Your task to perform on an android device: find snoozed emails in the gmail app Image 0: 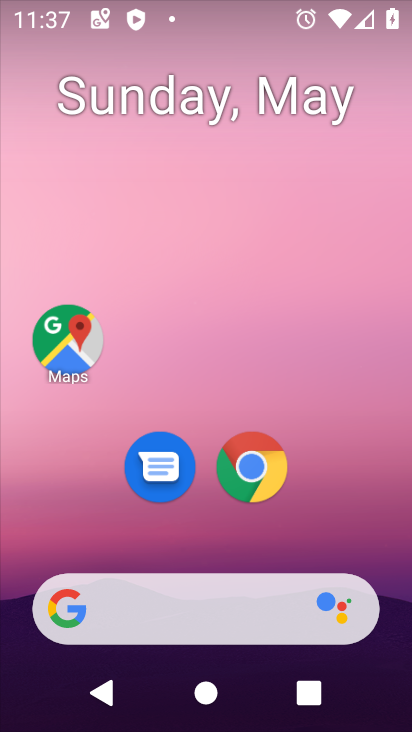
Step 0: drag from (384, 554) to (370, 16)
Your task to perform on an android device: find snoozed emails in the gmail app Image 1: 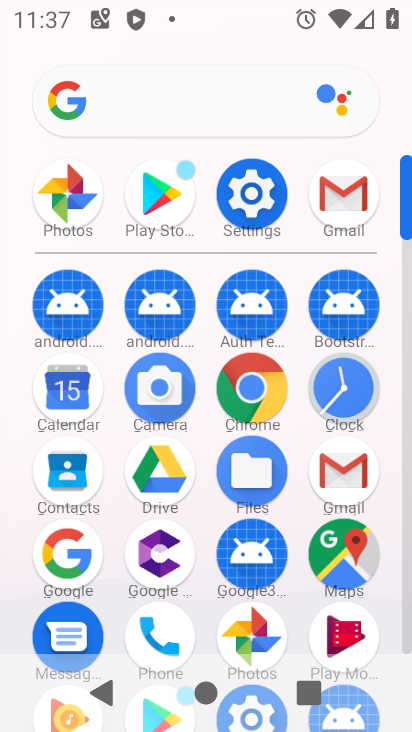
Step 1: click (345, 476)
Your task to perform on an android device: find snoozed emails in the gmail app Image 2: 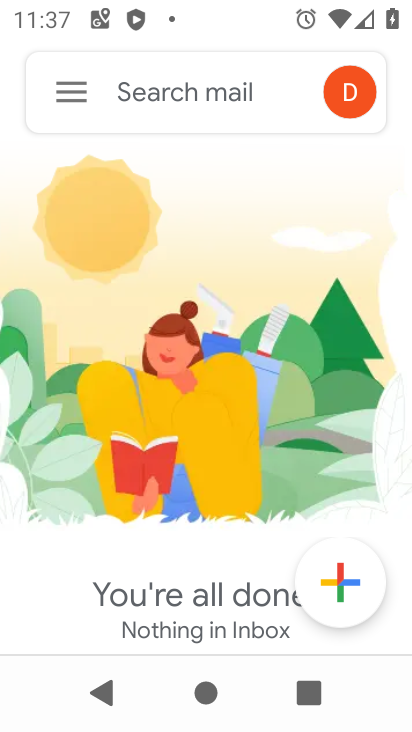
Step 2: click (73, 94)
Your task to perform on an android device: find snoozed emails in the gmail app Image 3: 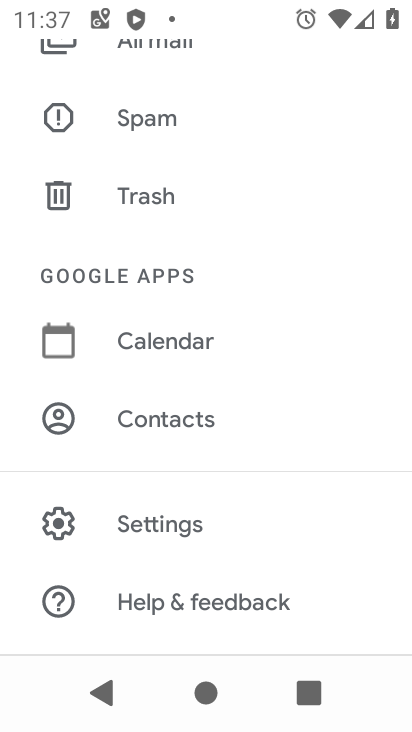
Step 3: drag from (266, 195) to (290, 588)
Your task to perform on an android device: find snoozed emails in the gmail app Image 4: 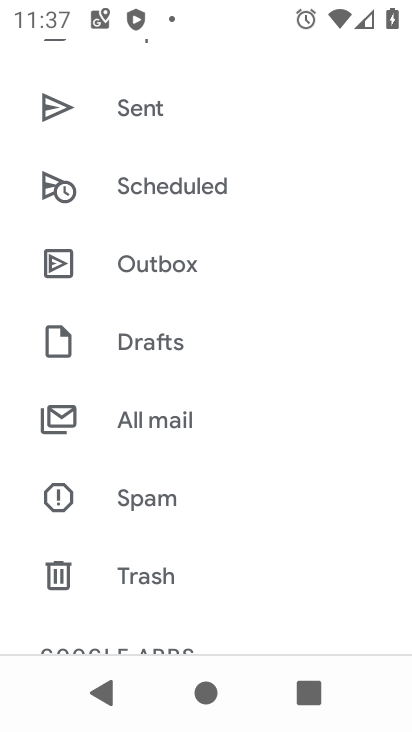
Step 4: drag from (260, 177) to (281, 567)
Your task to perform on an android device: find snoozed emails in the gmail app Image 5: 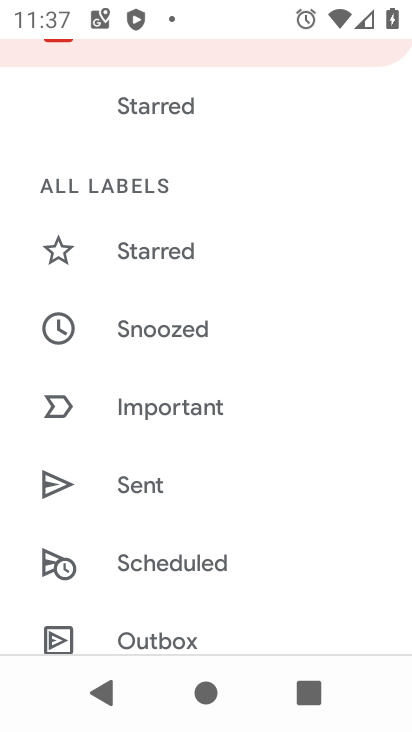
Step 5: click (149, 328)
Your task to perform on an android device: find snoozed emails in the gmail app Image 6: 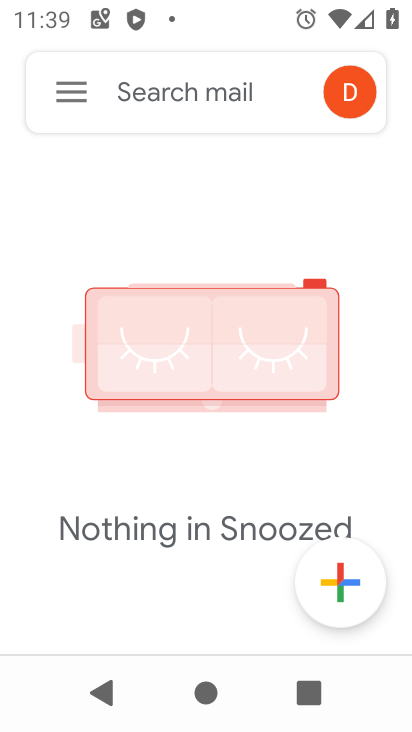
Step 6: task complete